Your task to perform on an android device: open app "Yahoo Mail" (install if not already installed) and go to login screen Image 0: 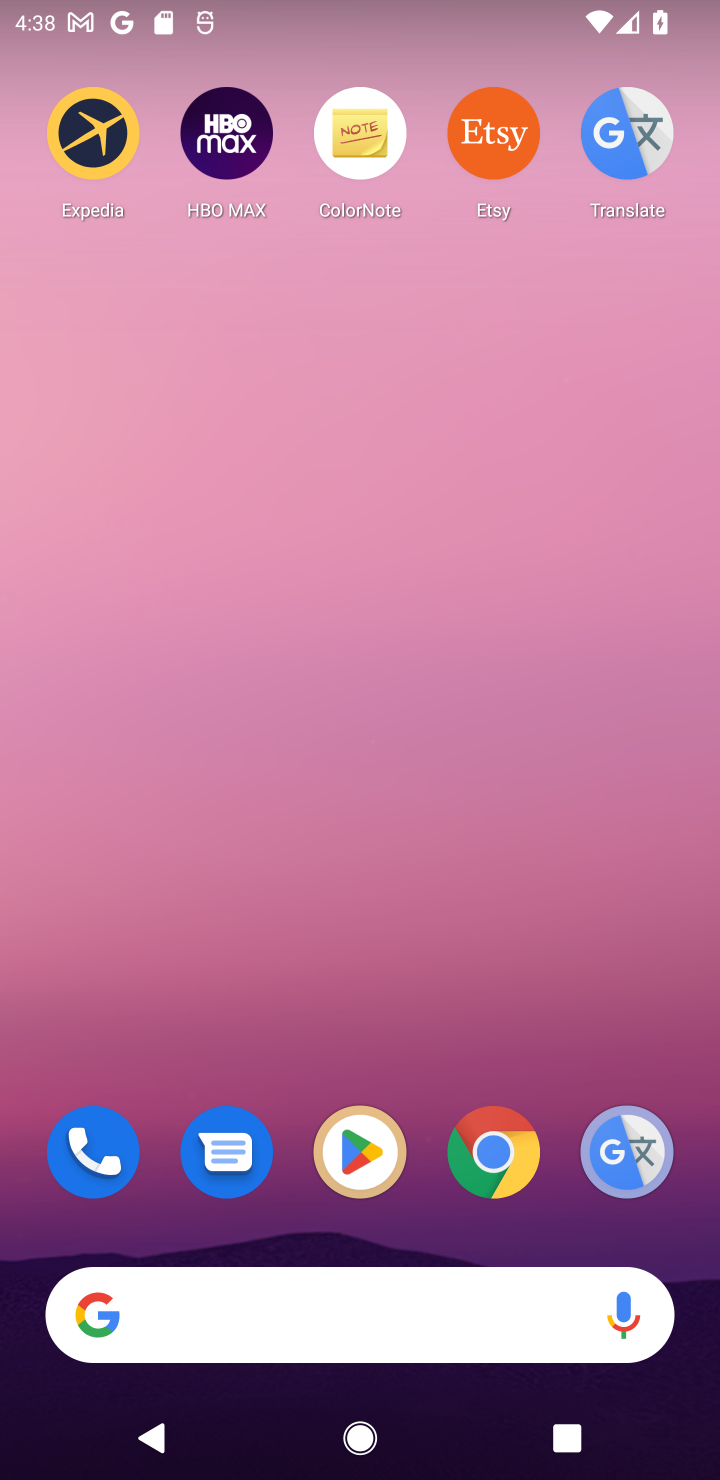
Step 0: click (348, 1142)
Your task to perform on an android device: open app "Yahoo Mail" (install if not already installed) and go to login screen Image 1: 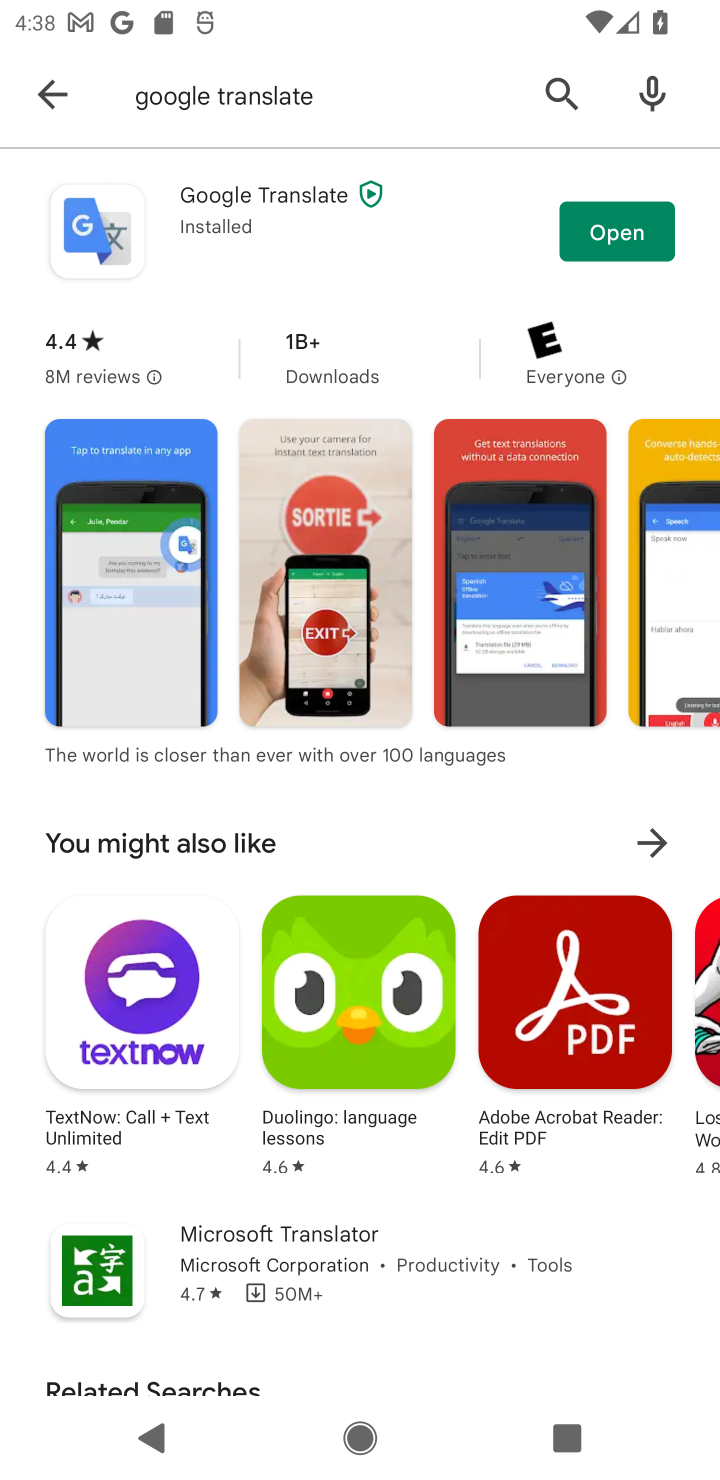
Step 1: click (40, 101)
Your task to perform on an android device: open app "Yahoo Mail" (install if not already installed) and go to login screen Image 2: 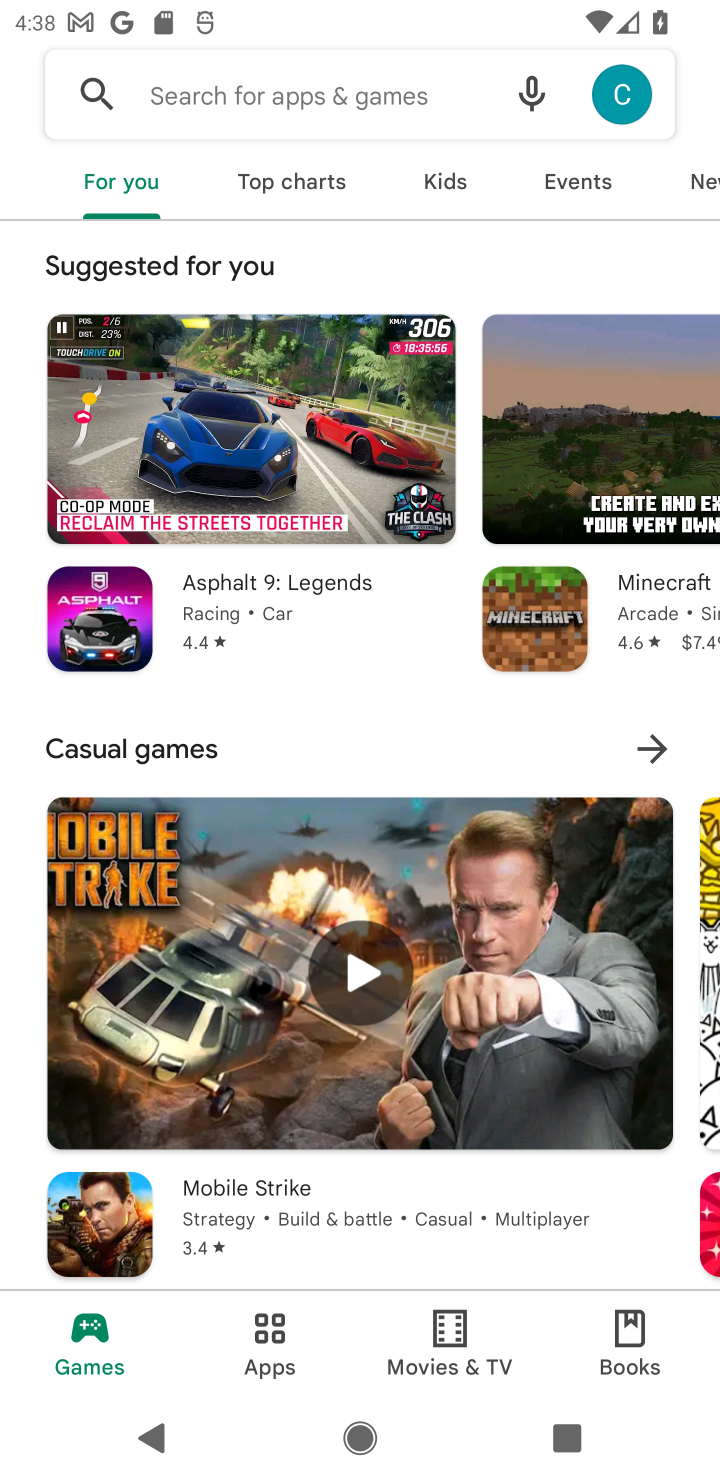
Step 2: click (260, 88)
Your task to perform on an android device: open app "Yahoo Mail" (install if not already installed) and go to login screen Image 3: 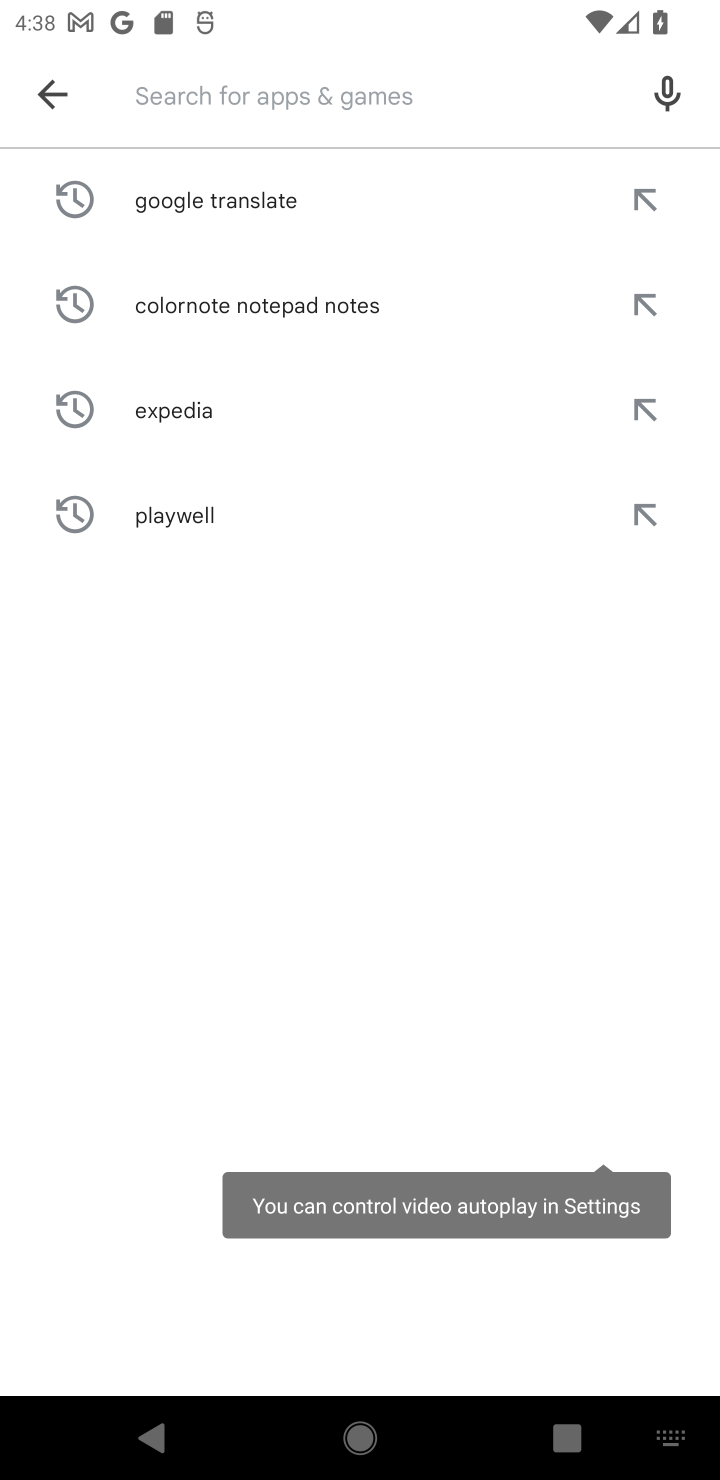
Step 3: type "Yahoo Mail"
Your task to perform on an android device: open app "Yahoo Mail" (install if not already installed) and go to login screen Image 4: 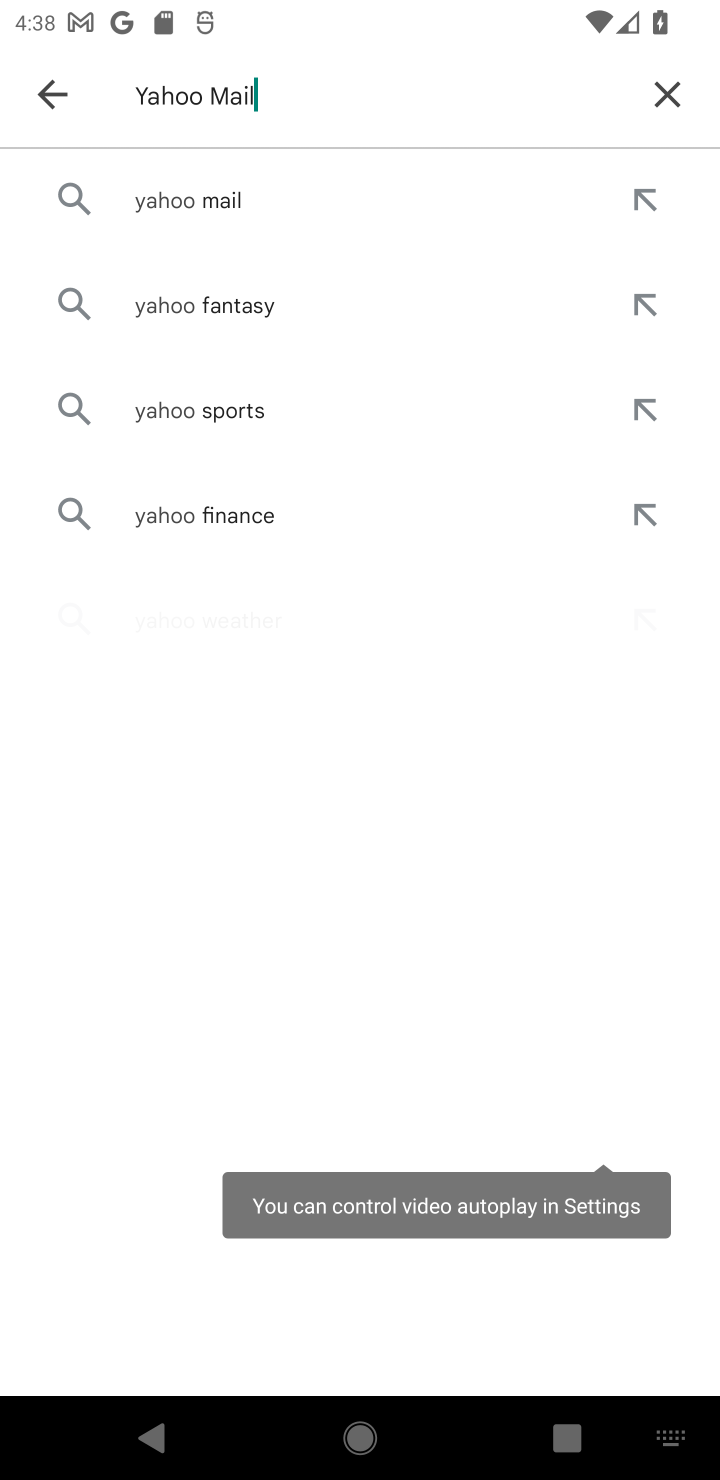
Step 4: type ""
Your task to perform on an android device: open app "Yahoo Mail" (install if not already installed) and go to login screen Image 5: 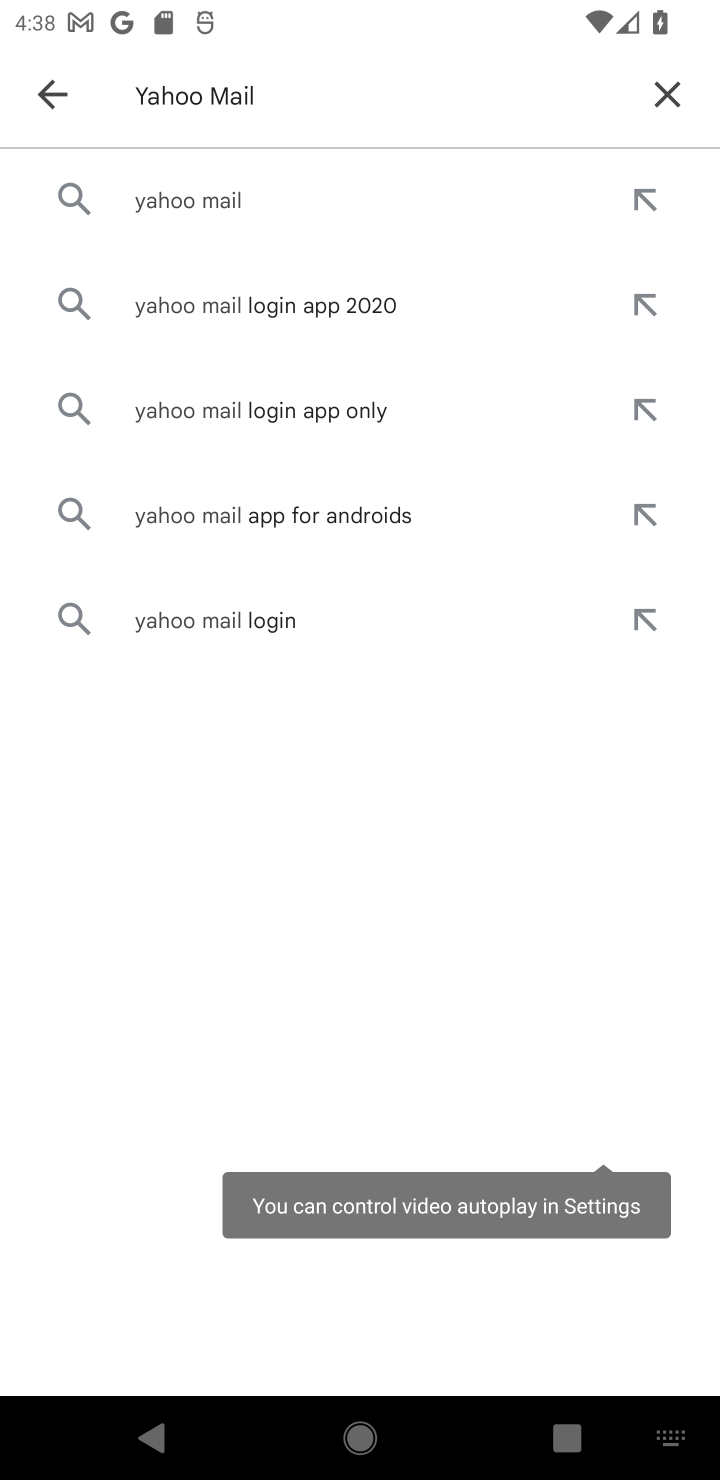
Step 5: click (241, 197)
Your task to perform on an android device: open app "Yahoo Mail" (install if not already installed) and go to login screen Image 6: 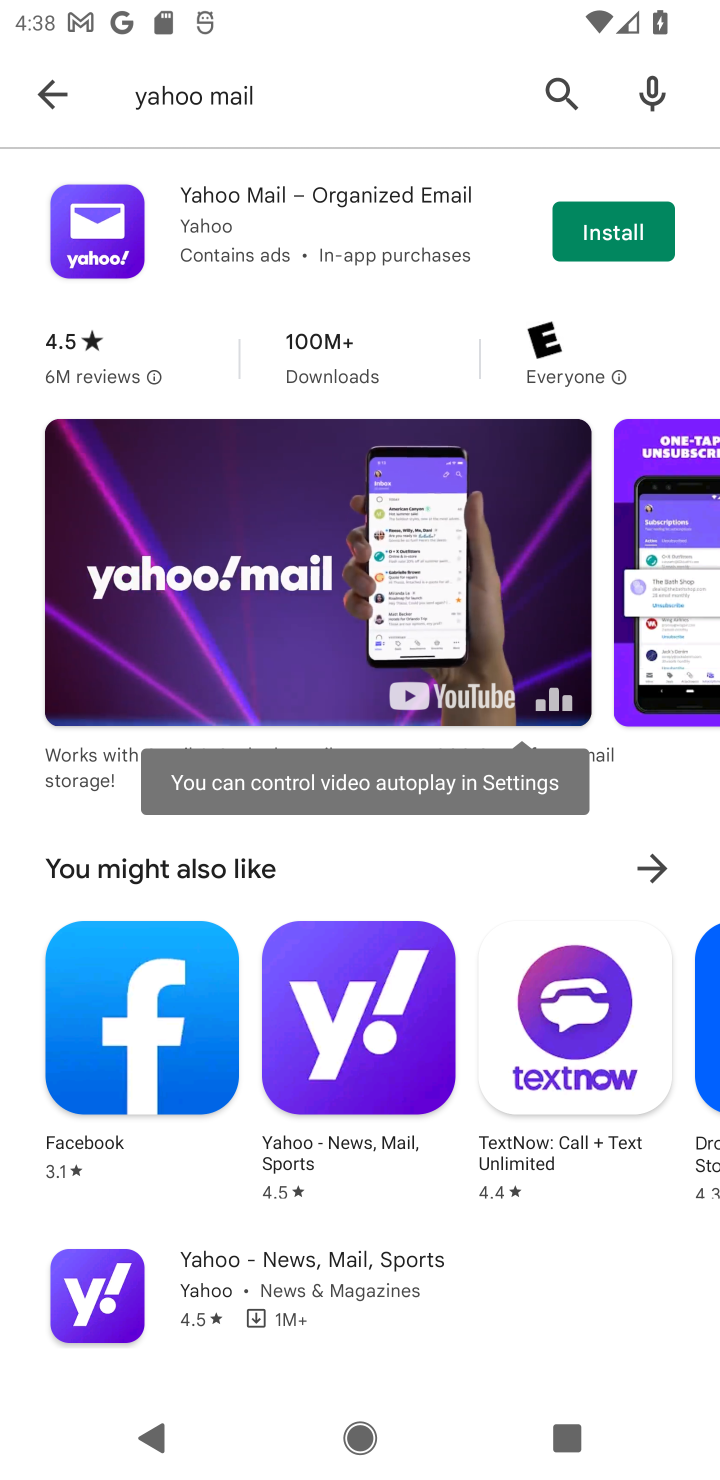
Step 6: click (637, 245)
Your task to perform on an android device: open app "Yahoo Mail" (install if not already installed) and go to login screen Image 7: 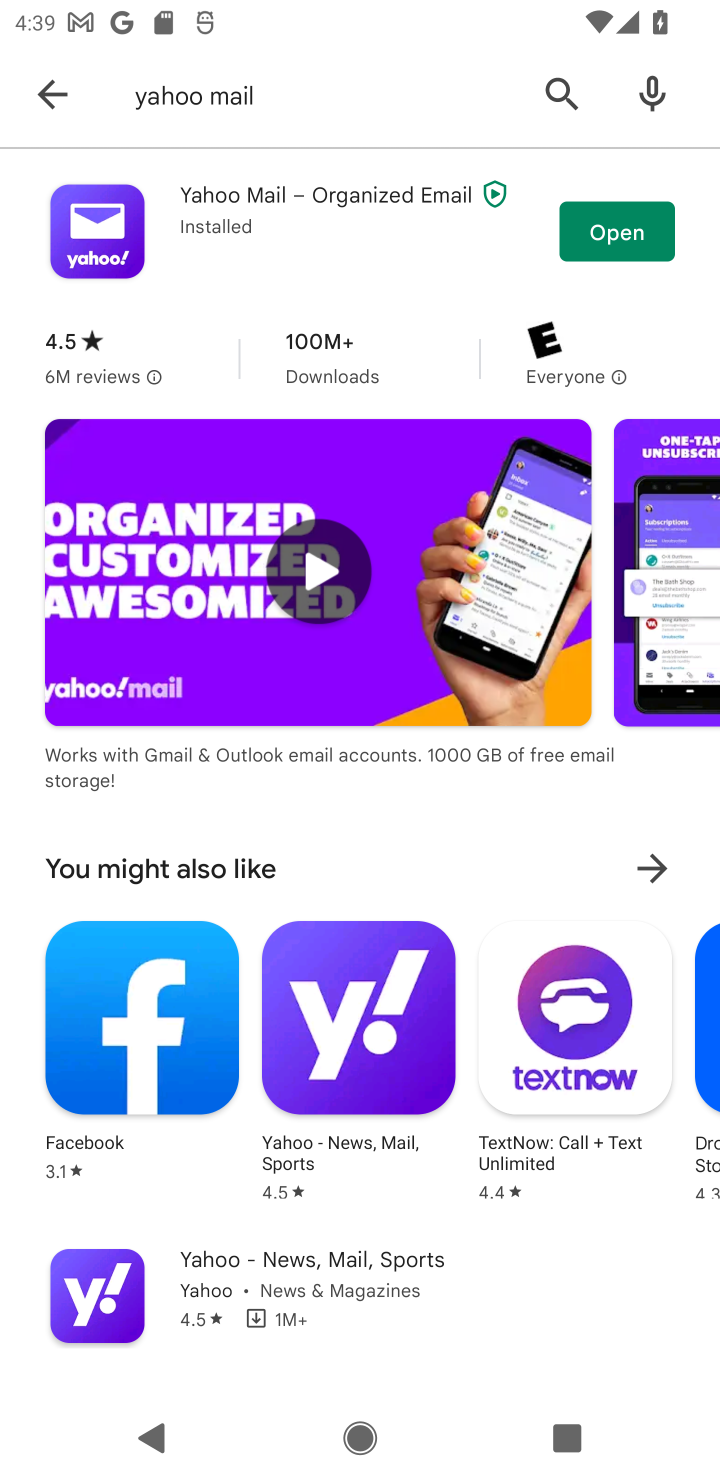
Step 7: click (602, 247)
Your task to perform on an android device: open app "Yahoo Mail" (install if not already installed) and go to login screen Image 8: 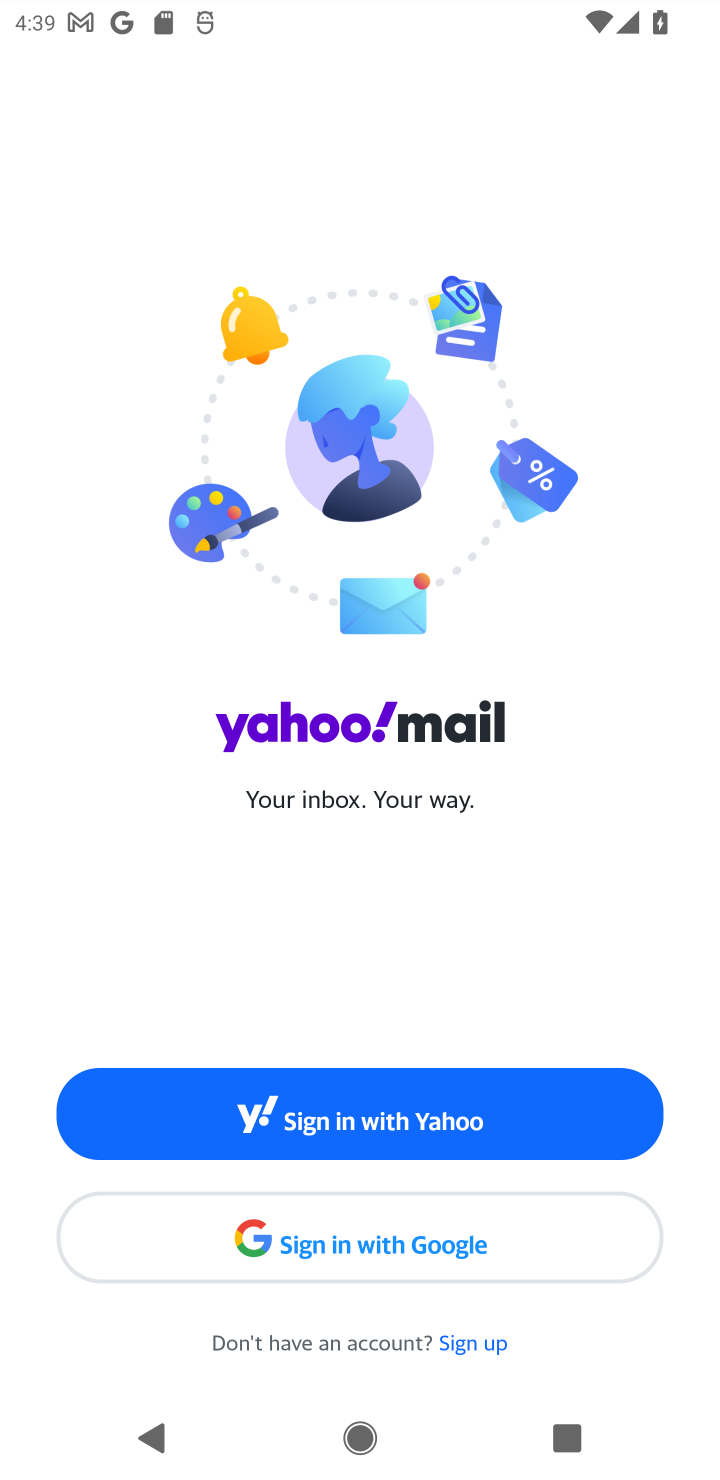
Step 8: click (490, 1350)
Your task to perform on an android device: open app "Yahoo Mail" (install if not already installed) and go to login screen Image 9: 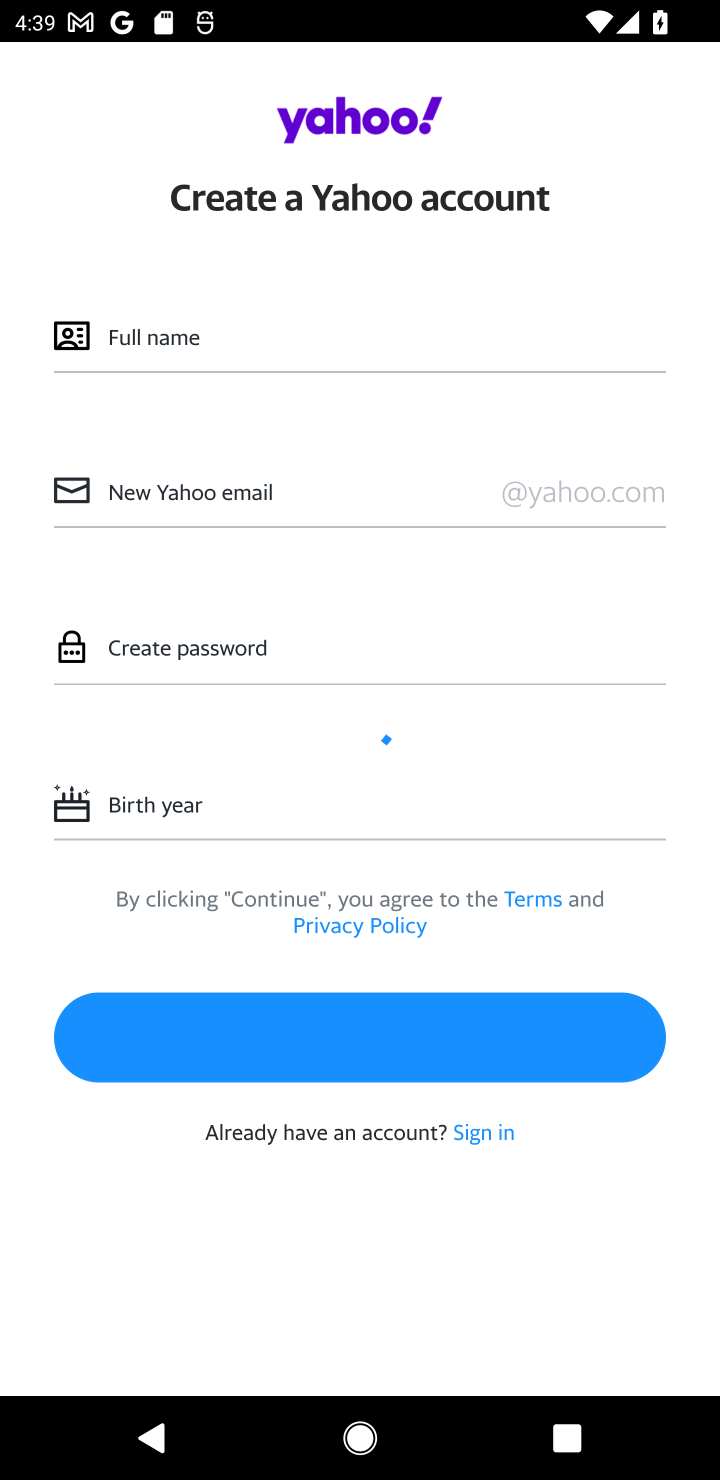
Step 9: task complete